Your task to perform on an android device: Is it going to rain tomorrow? Image 0: 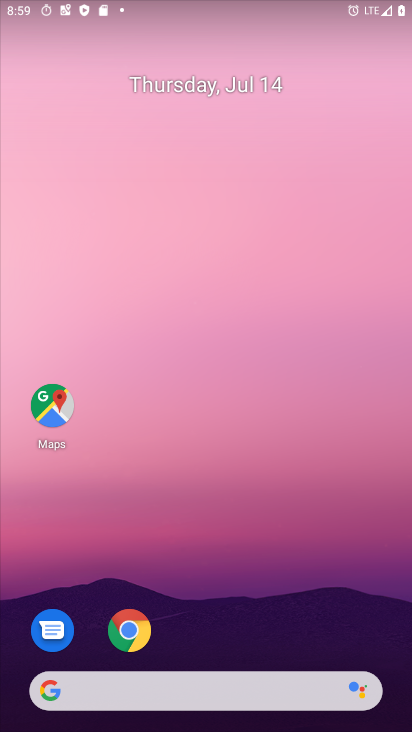
Step 0: drag from (219, 723) to (204, 135)
Your task to perform on an android device: Is it going to rain tomorrow? Image 1: 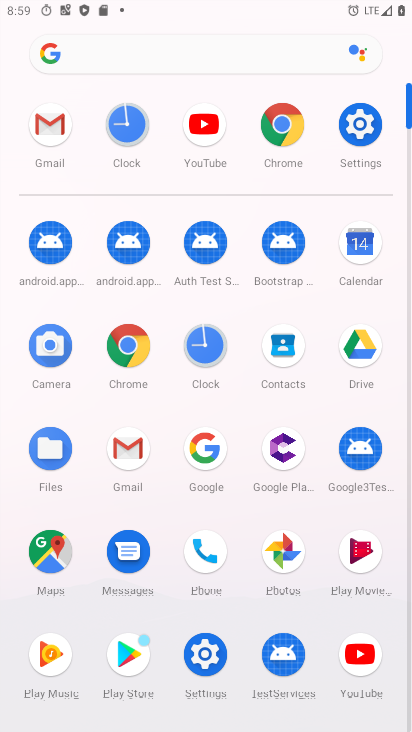
Step 1: click (200, 453)
Your task to perform on an android device: Is it going to rain tomorrow? Image 2: 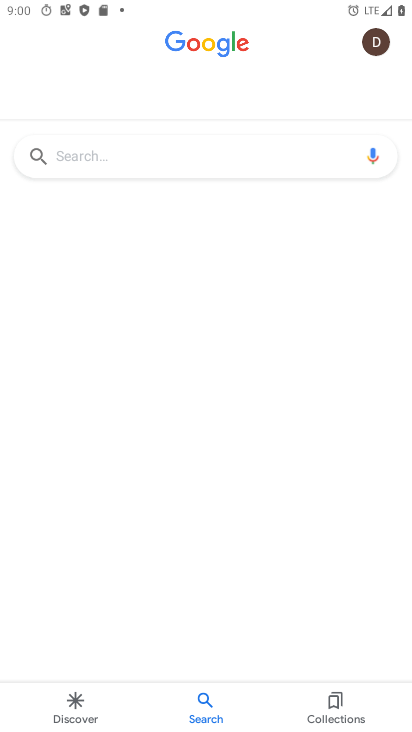
Step 2: click (151, 159)
Your task to perform on an android device: Is it going to rain tomorrow? Image 3: 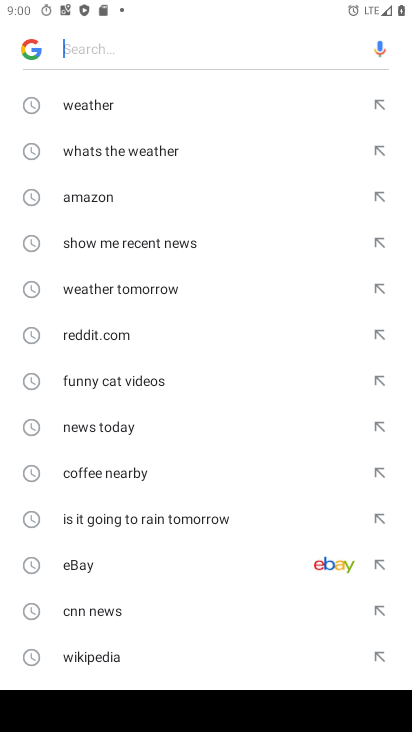
Step 3: click (91, 102)
Your task to perform on an android device: Is it going to rain tomorrow? Image 4: 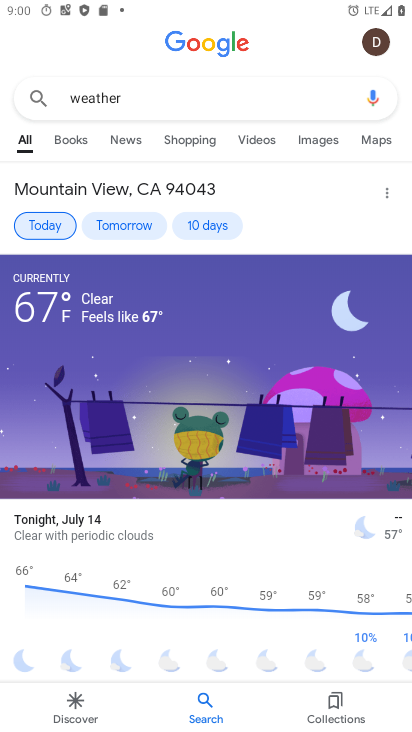
Step 4: click (127, 226)
Your task to perform on an android device: Is it going to rain tomorrow? Image 5: 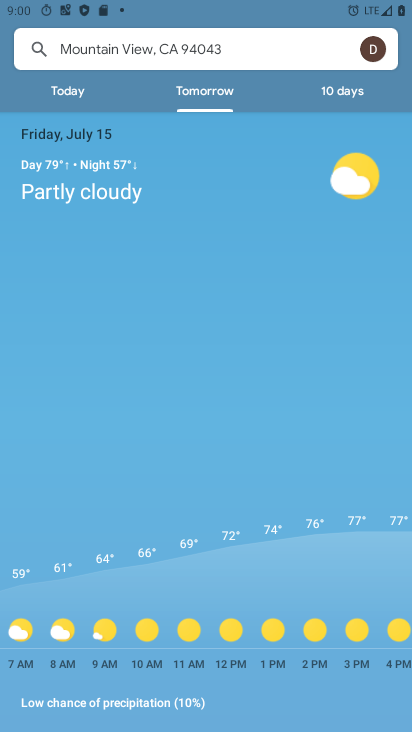
Step 5: task complete